Your task to perform on an android device: Open calendar and show me the fourth week of next month Image 0: 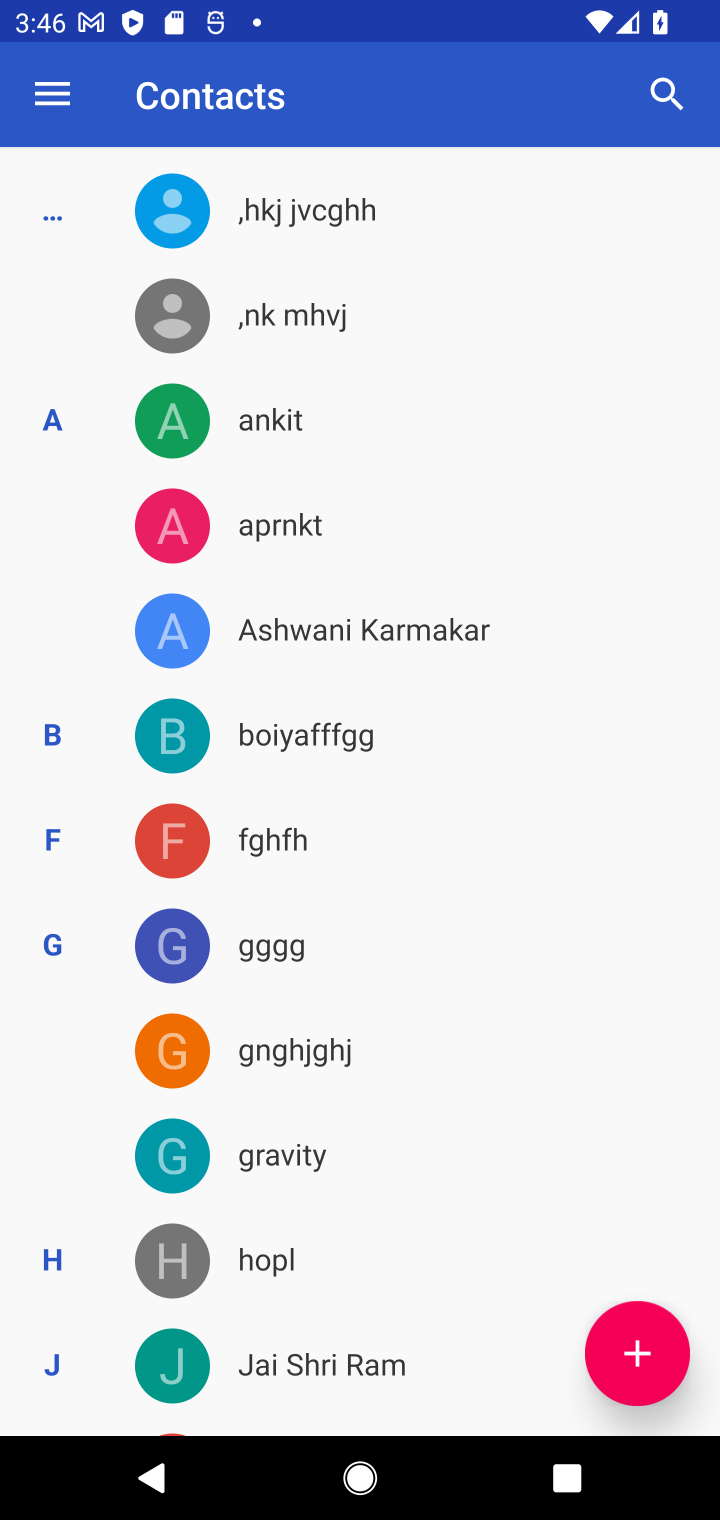
Step 0: press home button
Your task to perform on an android device: Open calendar and show me the fourth week of next month Image 1: 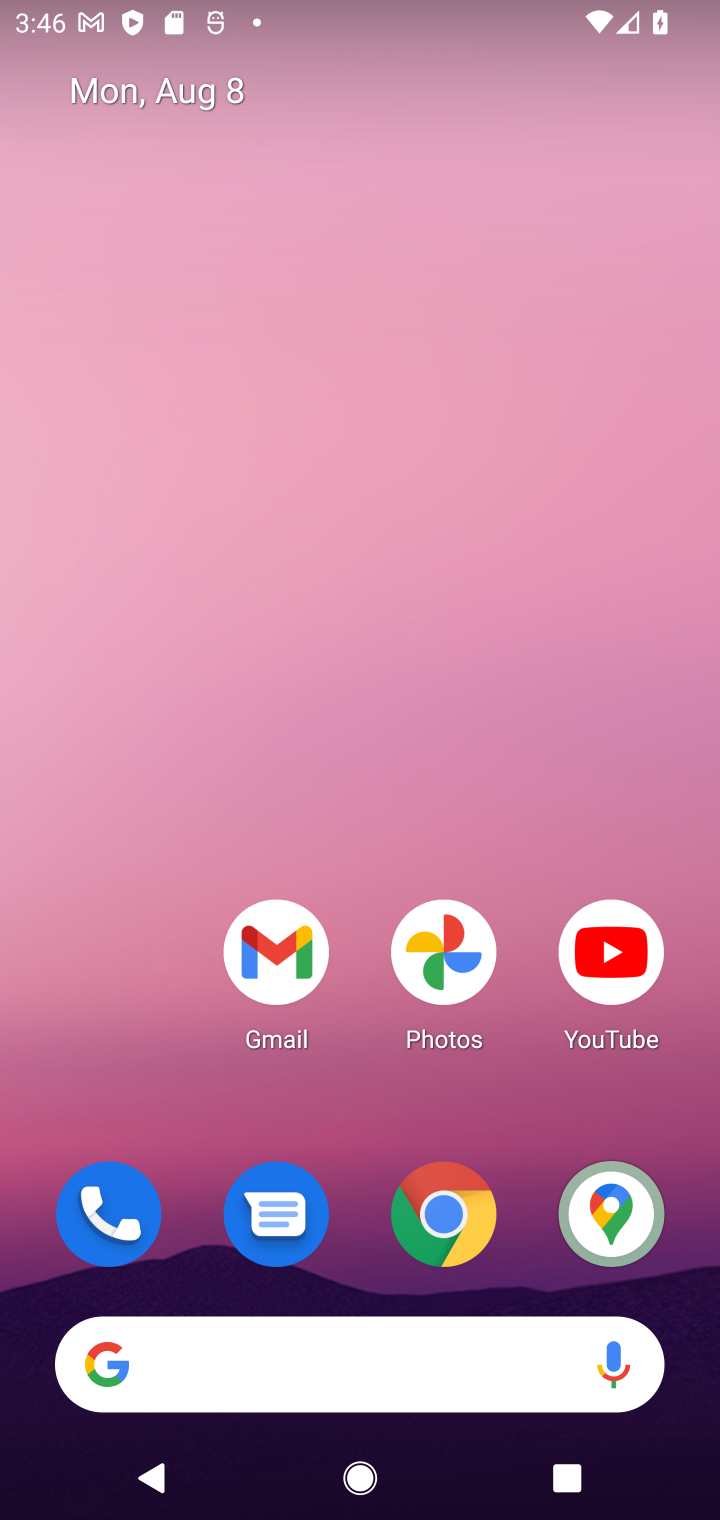
Step 1: drag from (356, 1247) to (359, 256)
Your task to perform on an android device: Open calendar and show me the fourth week of next month Image 2: 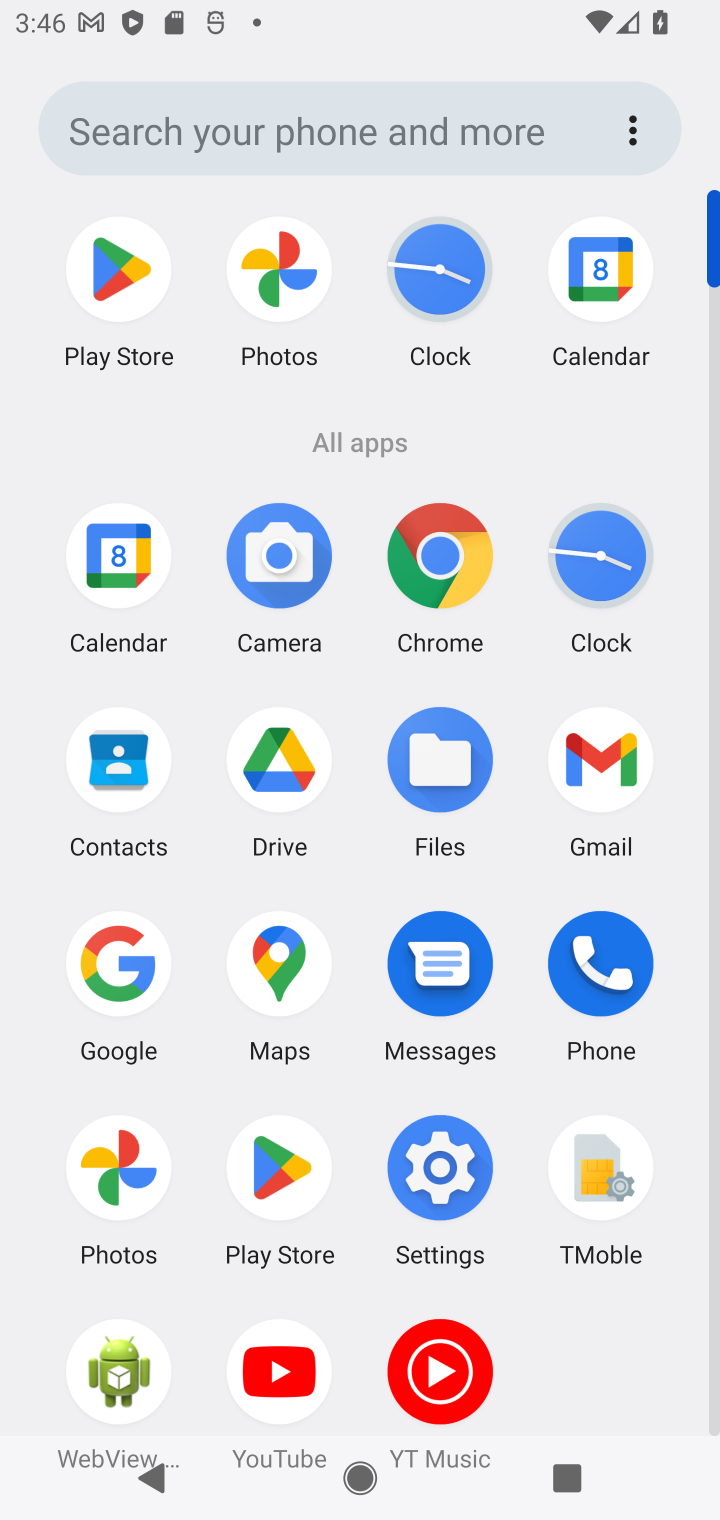
Step 2: click (111, 559)
Your task to perform on an android device: Open calendar and show me the fourth week of next month Image 3: 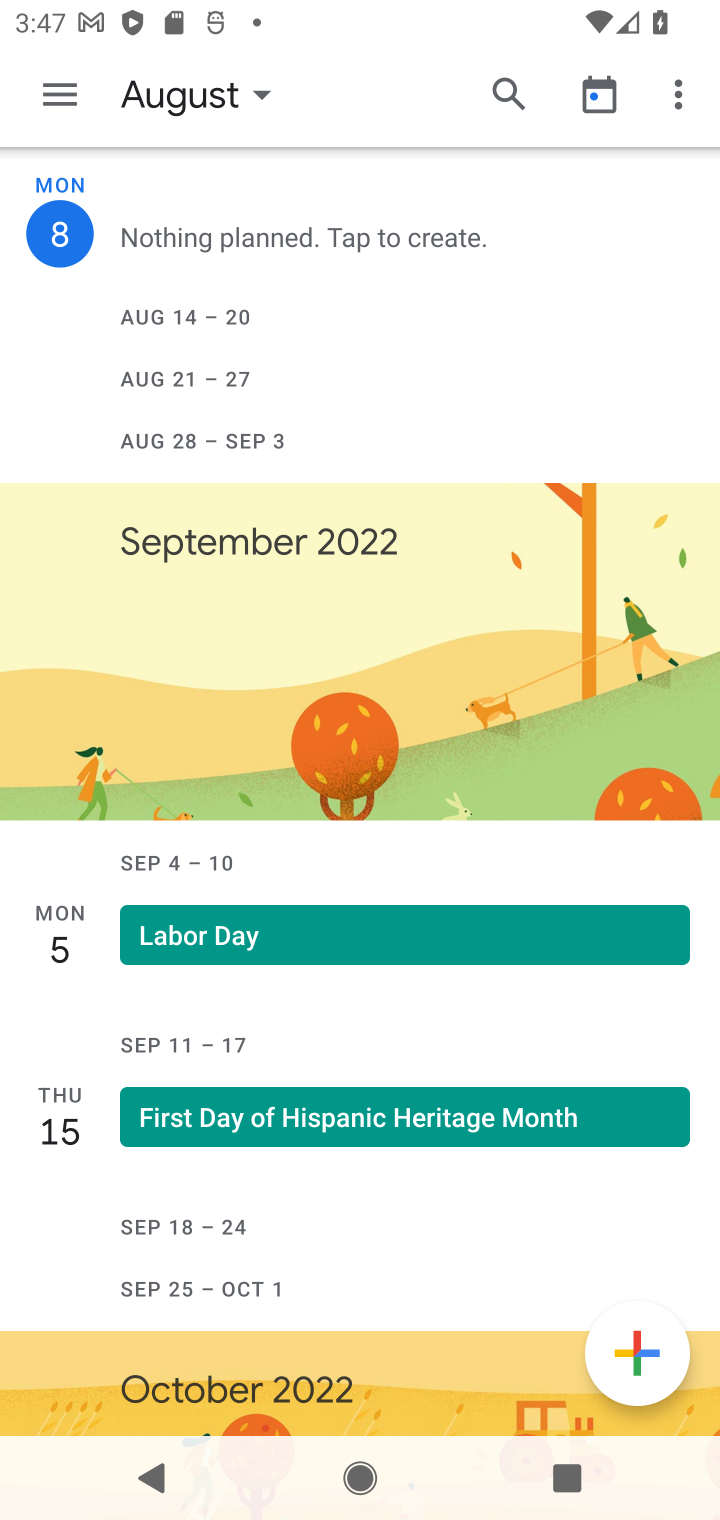
Step 3: click (263, 89)
Your task to perform on an android device: Open calendar and show me the fourth week of next month Image 4: 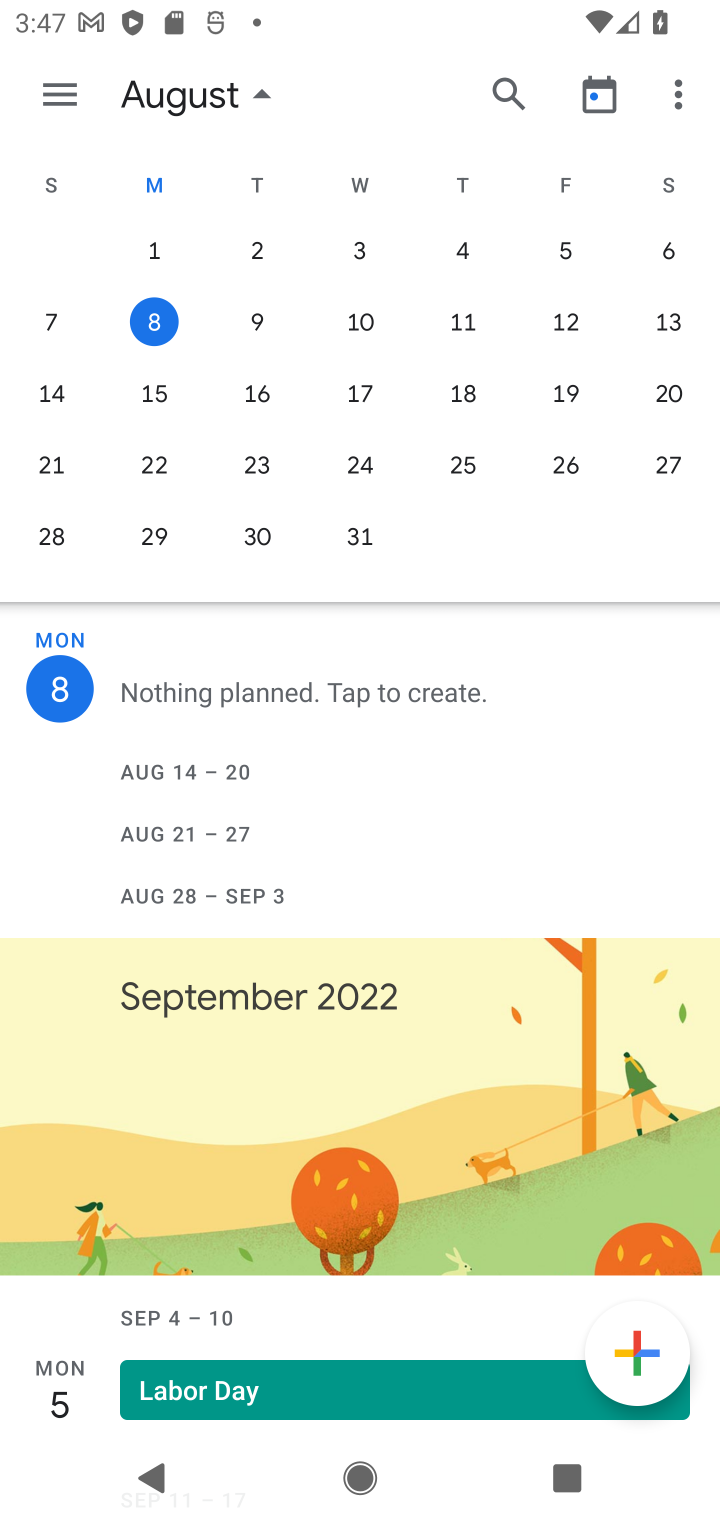
Step 4: drag from (550, 391) to (134, 366)
Your task to perform on an android device: Open calendar and show me the fourth week of next month Image 5: 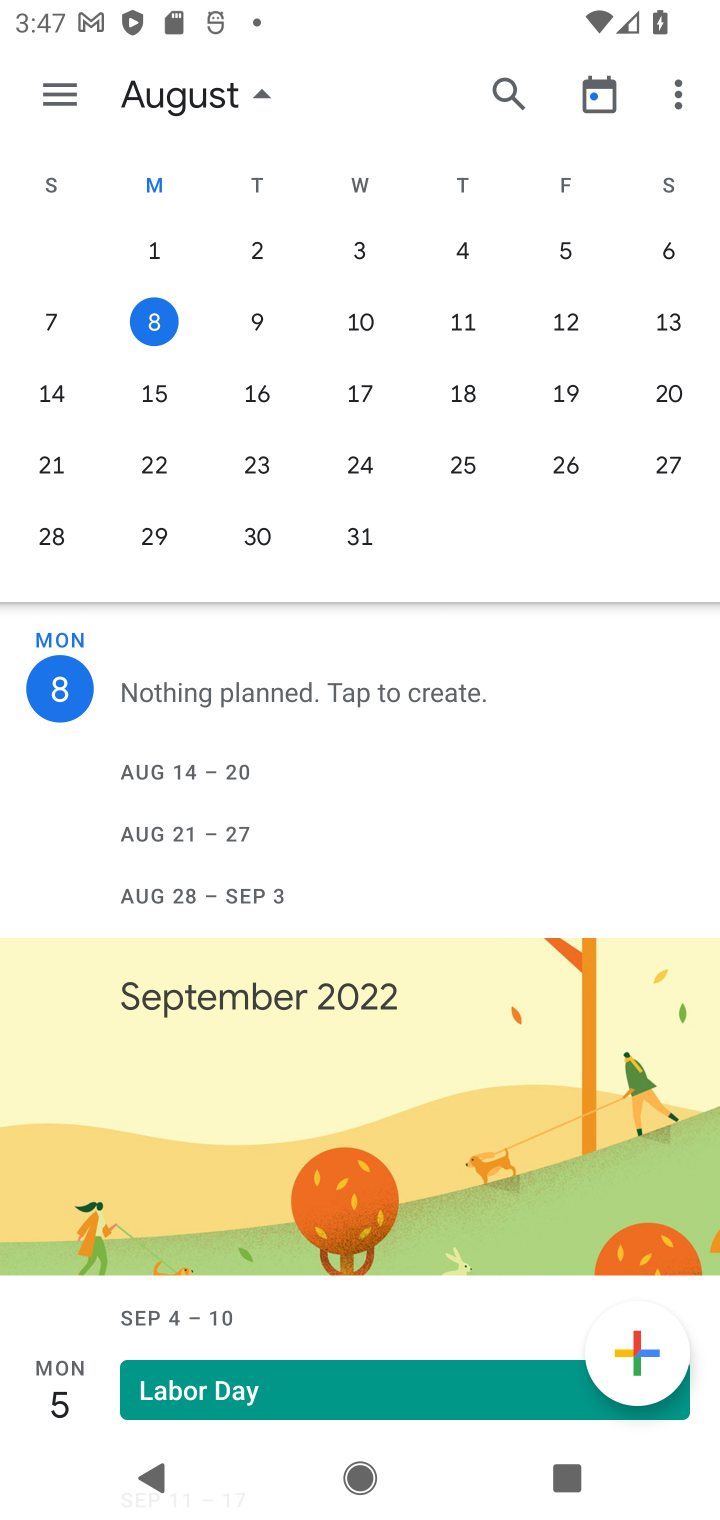
Step 5: drag from (659, 395) to (208, 374)
Your task to perform on an android device: Open calendar and show me the fourth week of next month Image 6: 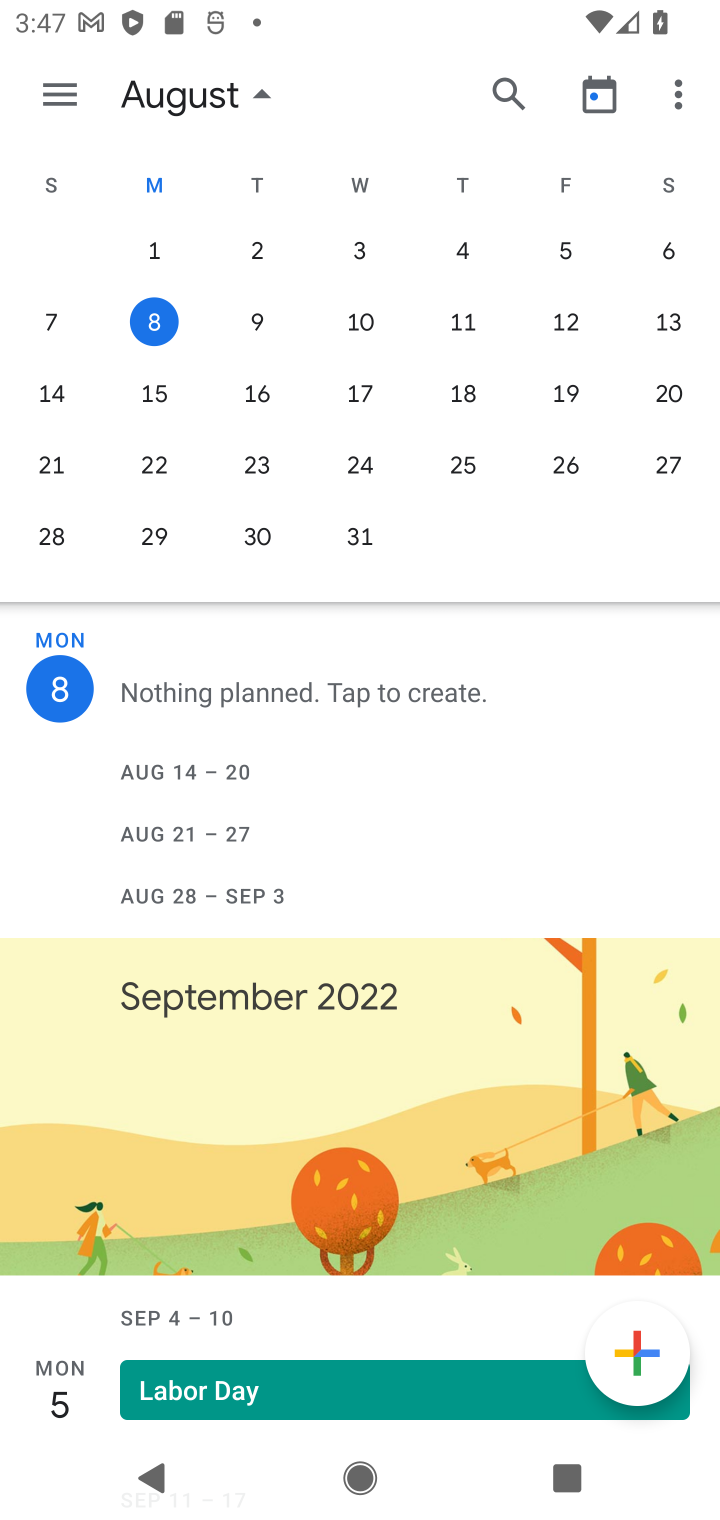
Step 6: drag from (667, 397) to (241, 386)
Your task to perform on an android device: Open calendar and show me the fourth week of next month Image 7: 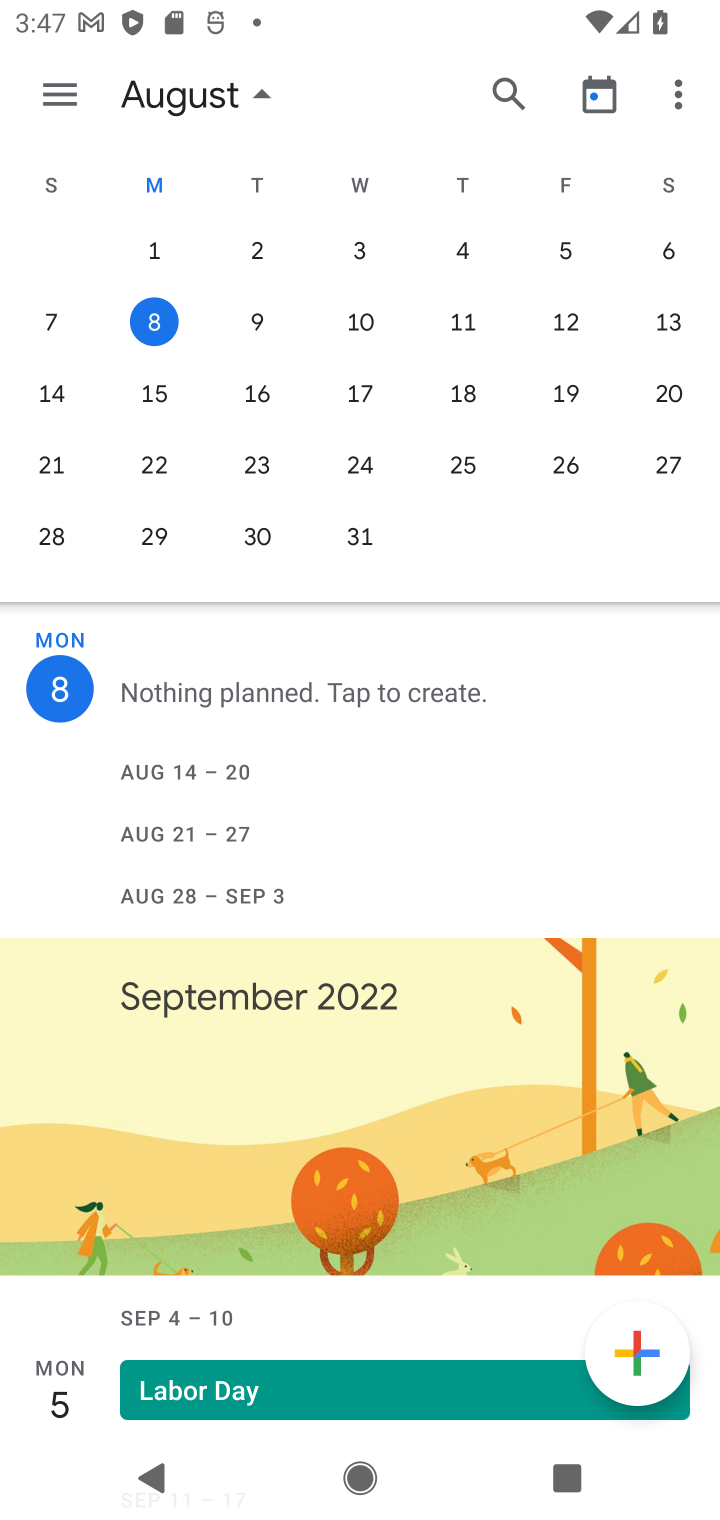
Step 7: drag from (679, 316) to (4, 342)
Your task to perform on an android device: Open calendar and show me the fourth week of next month Image 8: 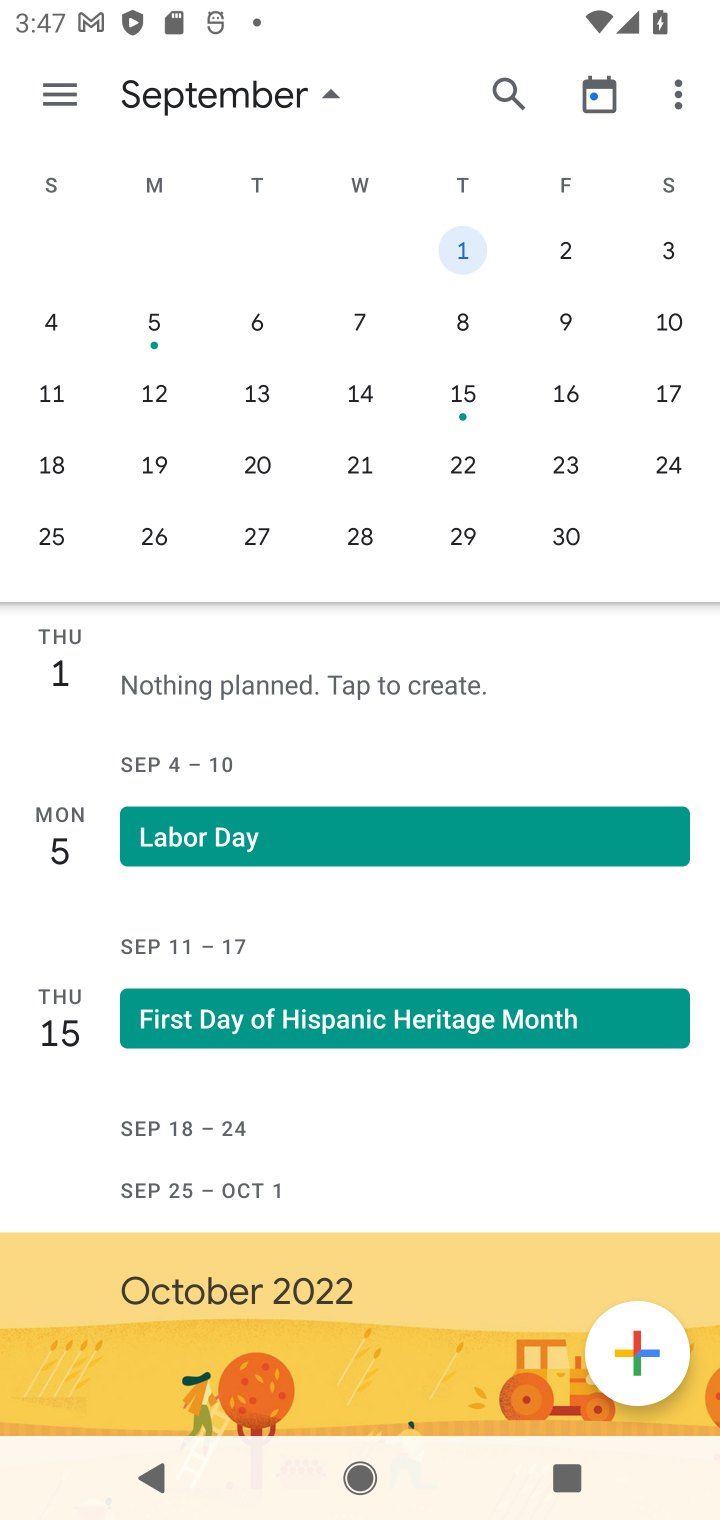
Step 8: click (161, 533)
Your task to perform on an android device: Open calendar and show me the fourth week of next month Image 9: 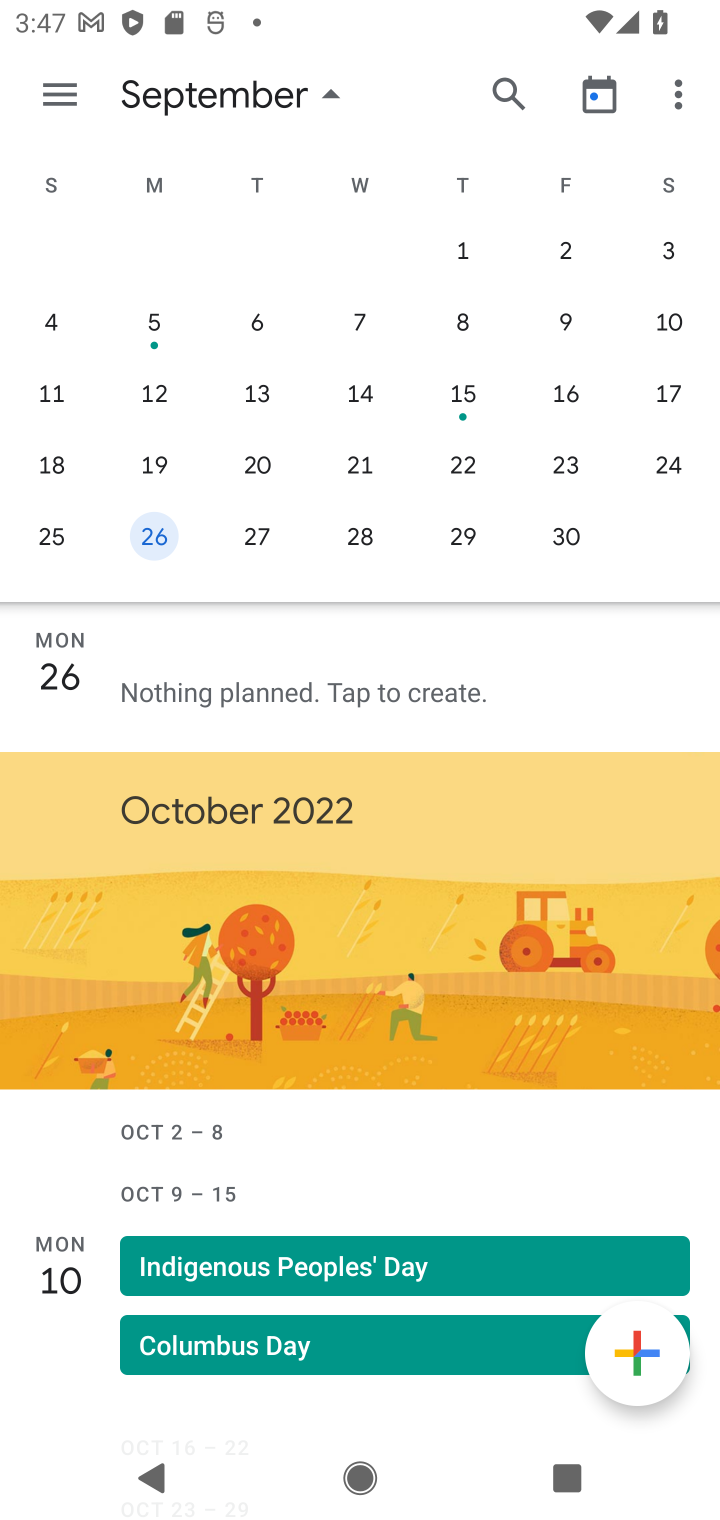
Step 9: click (52, 90)
Your task to perform on an android device: Open calendar and show me the fourth week of next month Image 10: 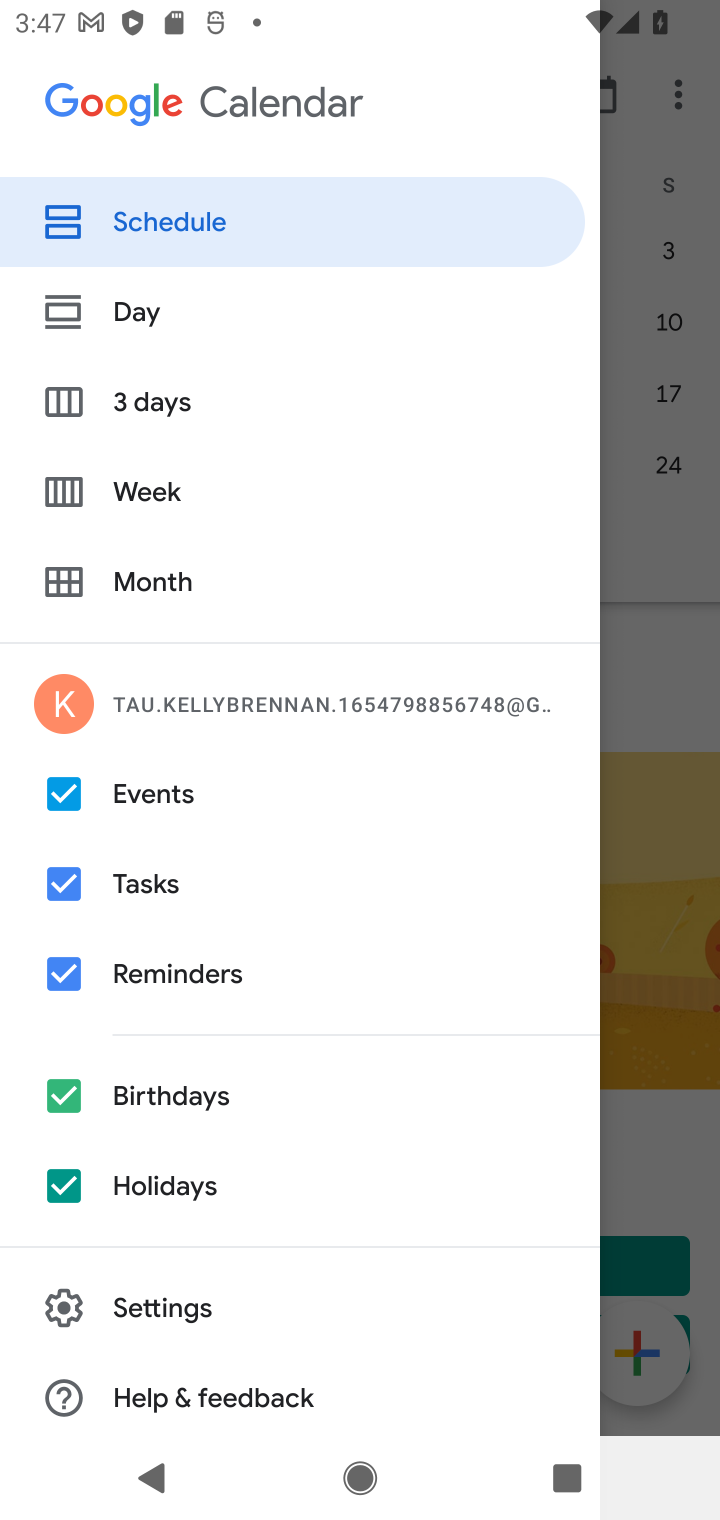
Step 10: click (142, 482)
Your task to perform on an android device: Open calendar and show me the fourth week of next month Image 11: 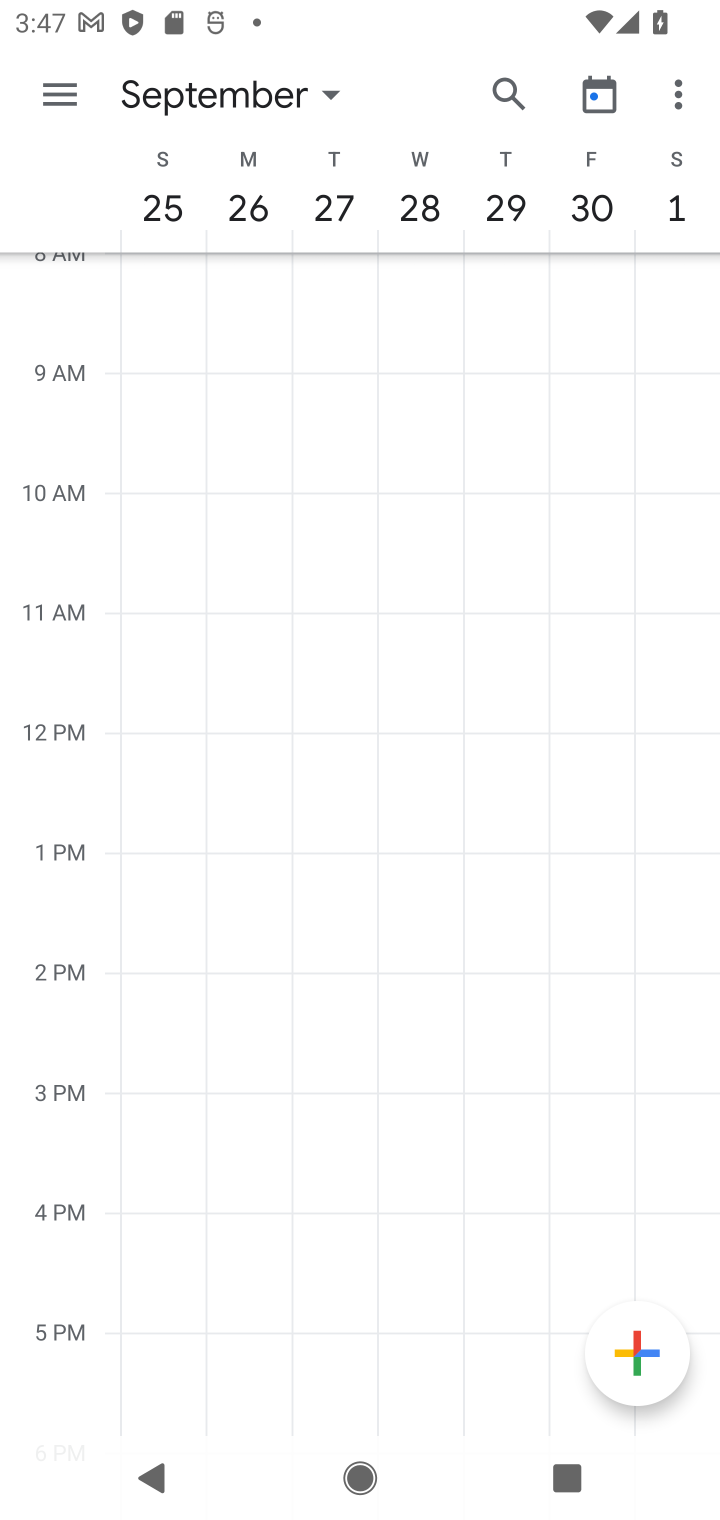
Step 11: task complete